Your task to perform on an android device: change timer sound Image 0: 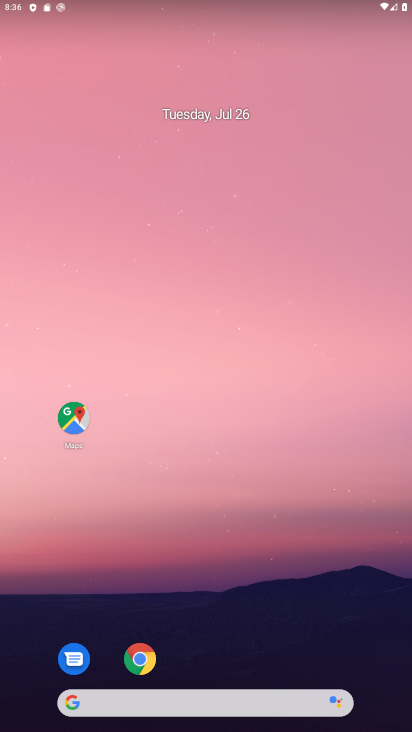
Step 0: drag from (175, 678) to (277, 126)
Your task to perform on an android device: change timer sound Image 1: 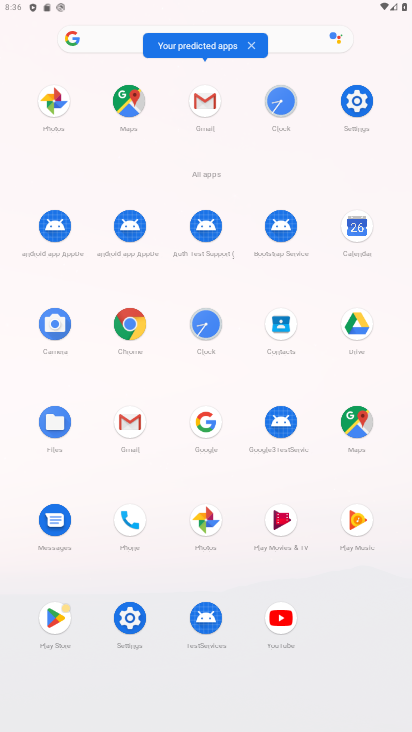
Step 1: click (199, 334)
Your task to perform on an android device: change timer sound Image 2: 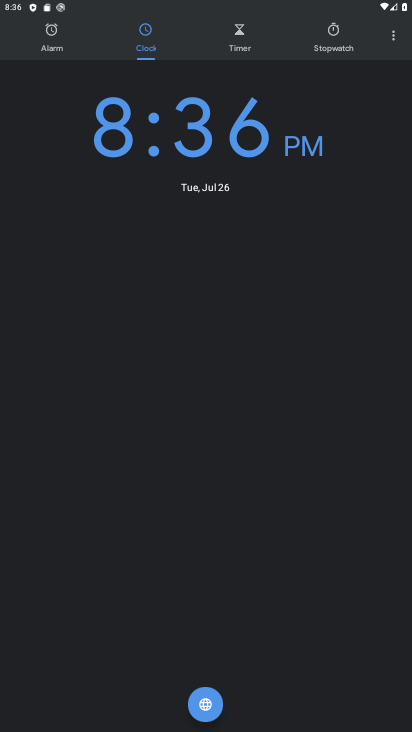
Step 2: click (383, 47)
Your task to perform on an android device: change timer sound Image 3: 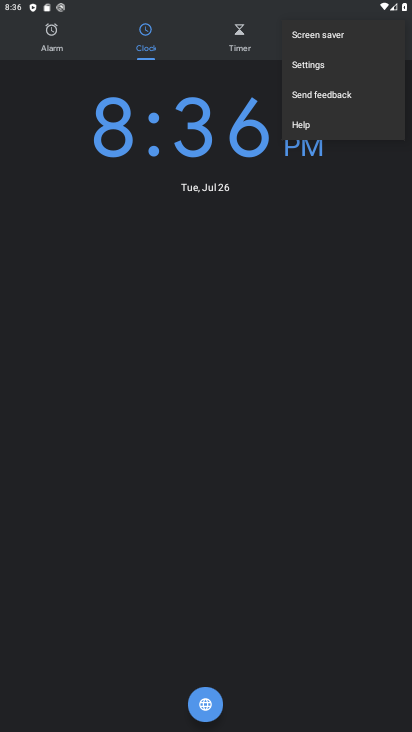
Step 3: click (313, 64)
Your task to perform on an android device: change timer sound Image 4: 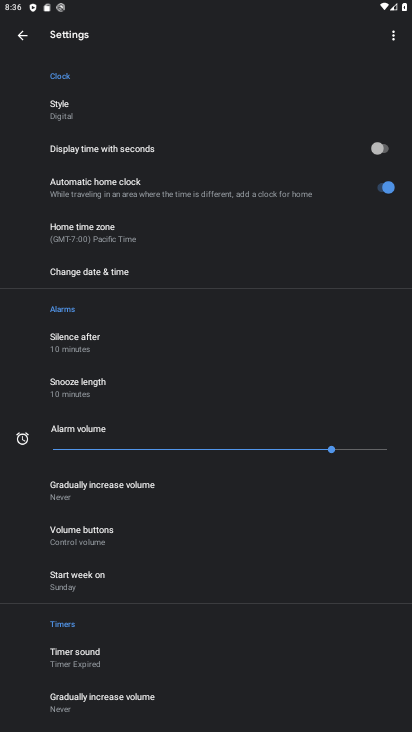
Step 4: click (81, 653)
Your task to perform on an android device: change timer sound Image 5: 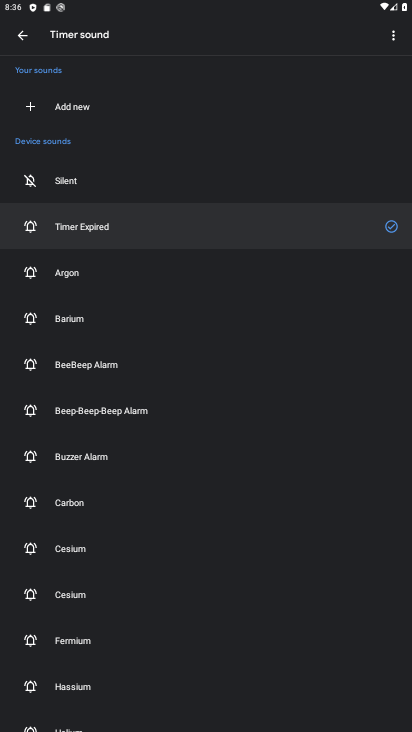
Step 5: click (41, 223)
Your task to perform on an android device: change timer sound Image 6: 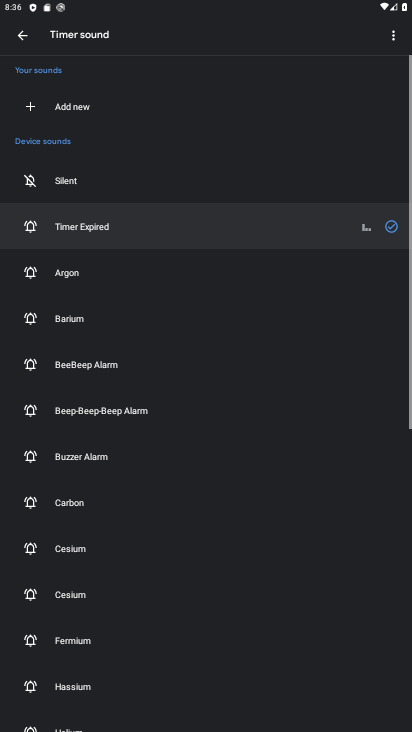
Step 6: click (75, 274)
Your task to perform on an android device: change timer sound Image 7: 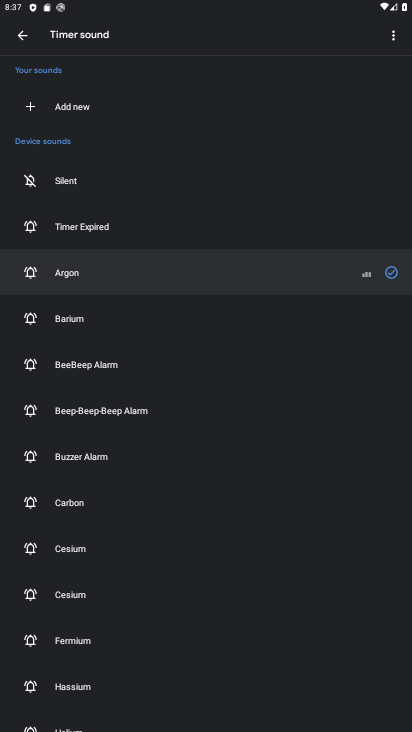
Step 7: task complete